Your task to perform on an android device: What's on my calendar tomorrow? Image 0: 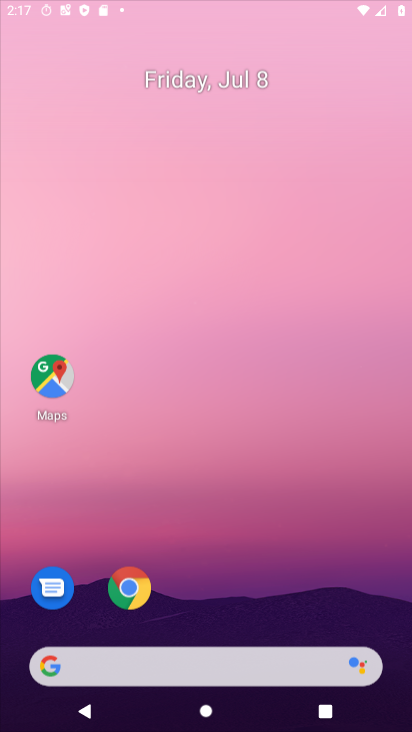
Step 0: press home button
Your task to perform on an android device: What's on my calendar tomorrow? Image 1: 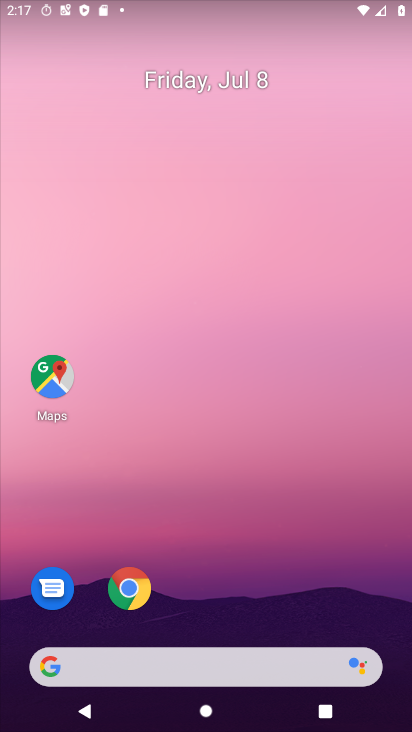
Step 1: press home button
Your task to perform on an android device: What's on my calendar tomorrow? Image 2: 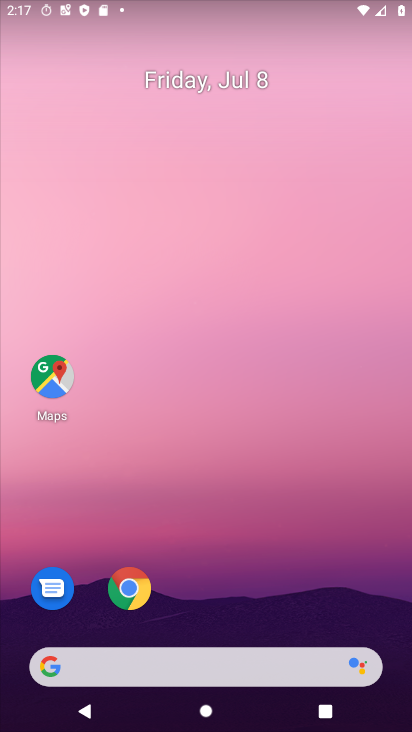
Step 2: drag from (263, 532) to (146, 10)
Your task to perform on an android device: What's on my calendar tomorrow? Image 3: 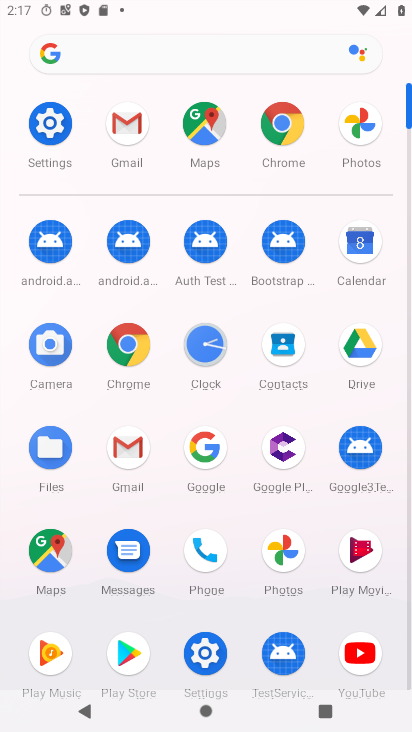
Step 3: click (367, 244)
Your task to perform on an android device: What's on my calendar tomorrow? Image 4: 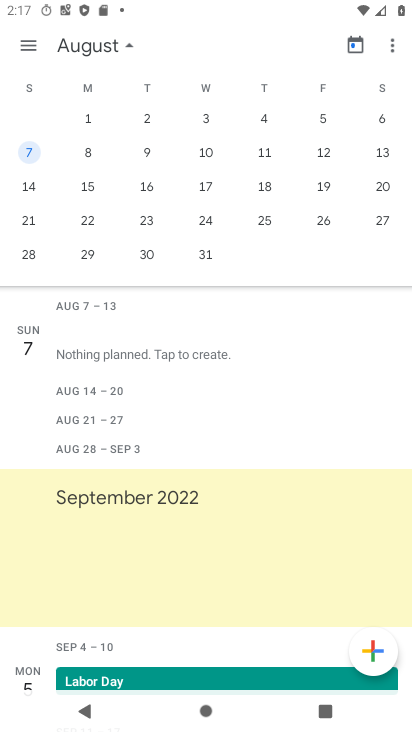
Step 4: drag from (117, 171) to (409, 142)
Your task to perform on an android device: What's on my calendar tomorrow? Image 5: 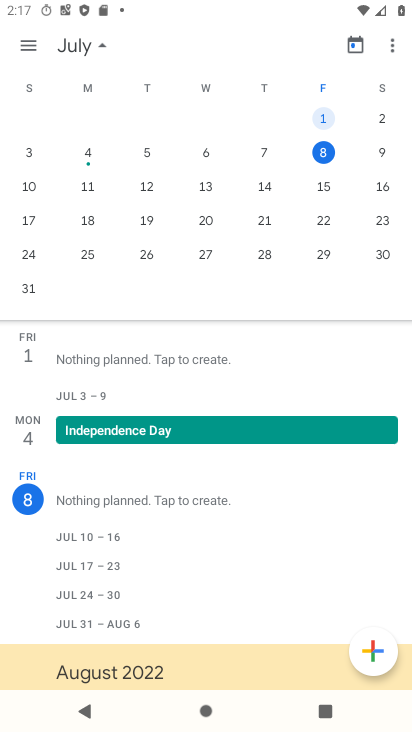
Step 5: click (385, 151)
Your task to perform on an android device: What's on my calendar tomorrow? Image 6: 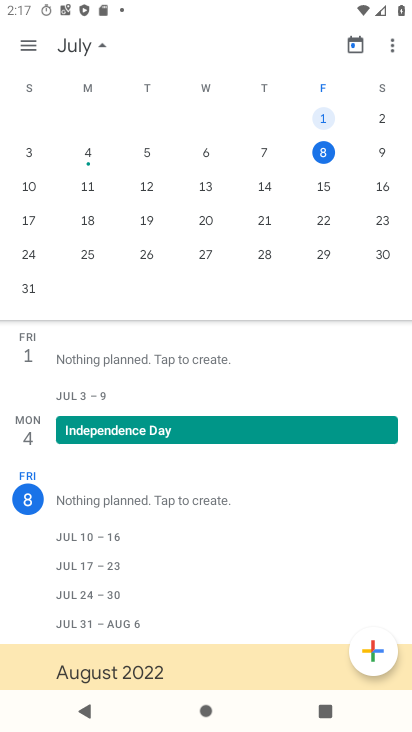
Step 6: click (378, 153)
Your task to perform on an android device: What's on my calendar tomorrow? Image 7: 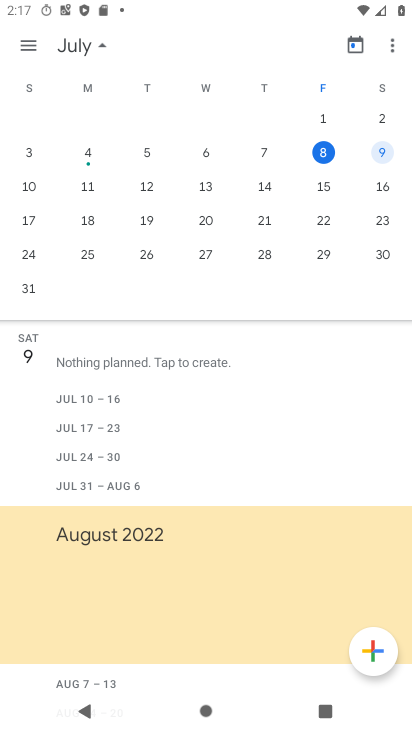
Step 7: task complete